Your task to perform on an android device: Find coffee shops on Maps Image 0: 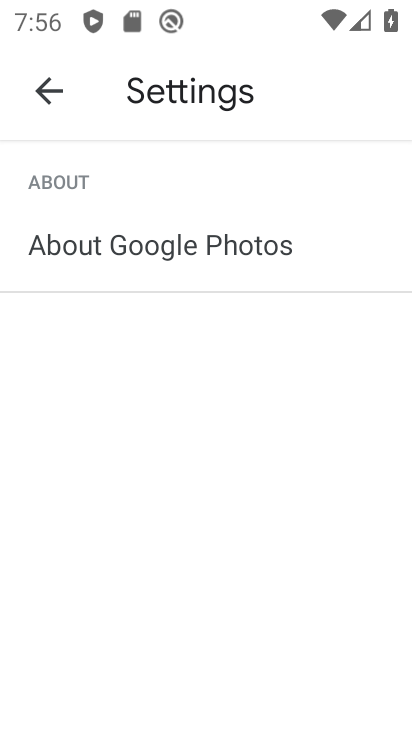
Step 0: press home button
Your task to perform on an android device: Find coffee shops on Maps Image 1: 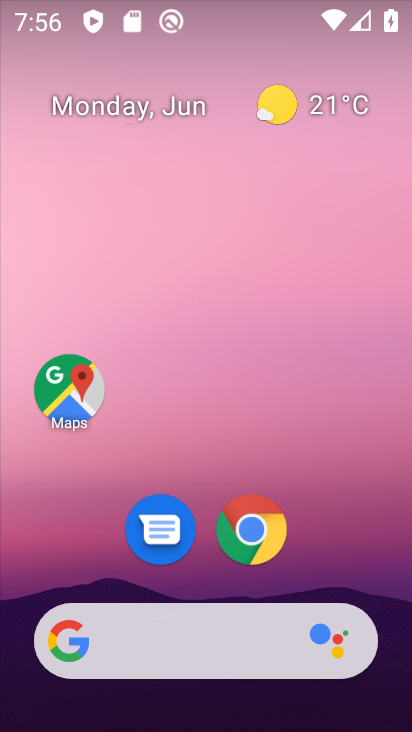
Step 1: click (58, 401)
Your task to perform on an android device: Find coffee shops on Maps Image 2: 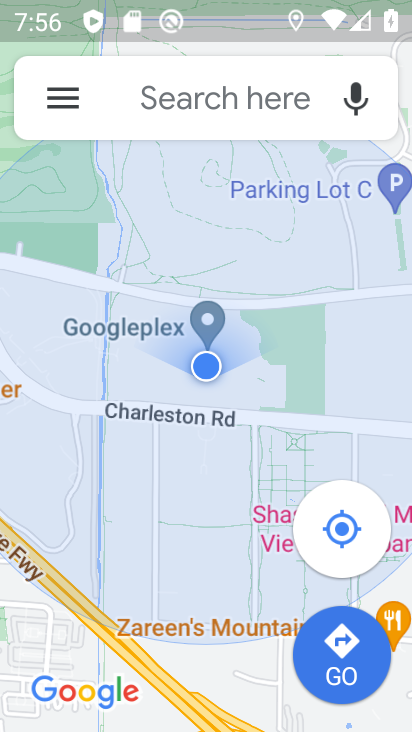
Step 2: click (236, 116)
Your task to perform on an android device: Find coffee shops on Maps Image 3: 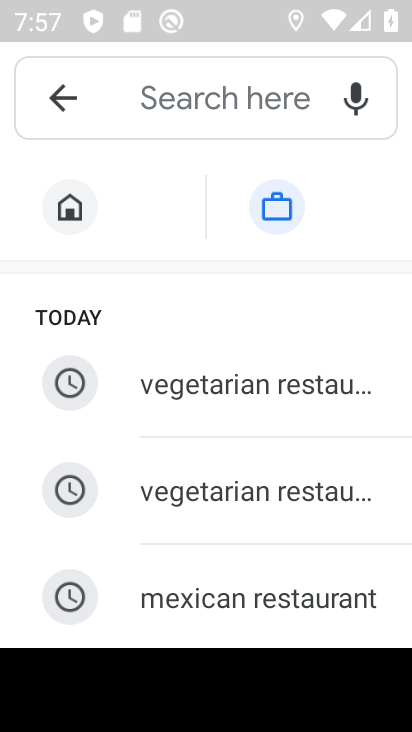
Step 3: click (173, 94)
Your task to perform on an android device: Find coffee shops on Maps Image 4: 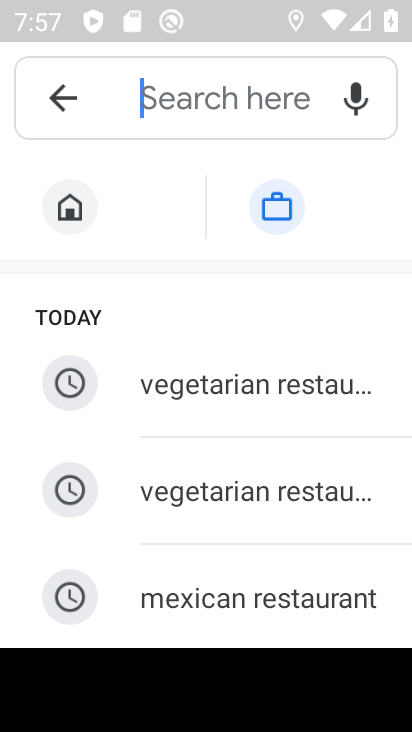
Step 4: type "coffee "
Your task to perform on an android device: Find coffee shops on Maps Image 5: 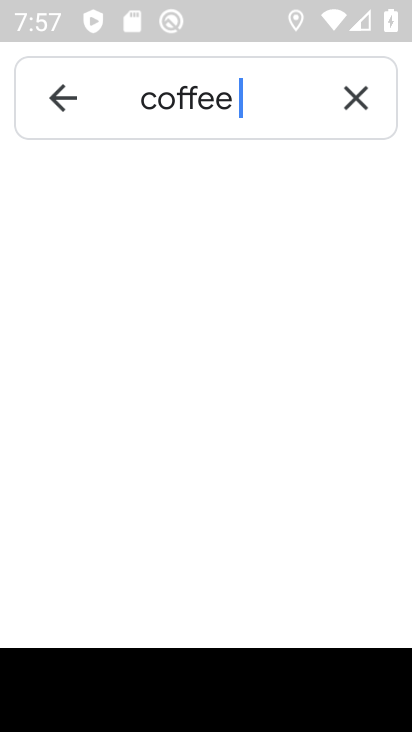
Step 5: type ""
Your task to perform on an android device: Find coffee shops on Maps Image 6: 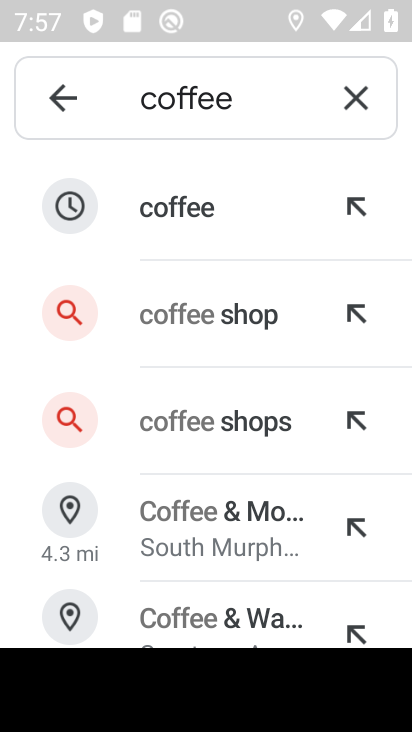
Step 6: click (213, 206)
Your task to perform on an android device: Find coffee shops on Maps Image 7: 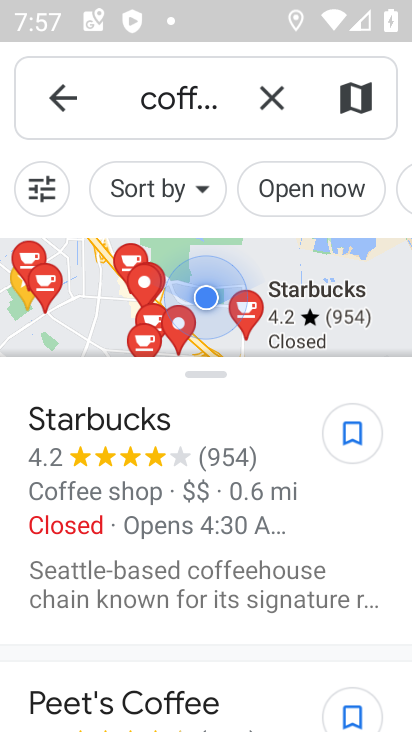
Step 7: task complete